Your task to perform on an android device: Open Chrome and go to the settings page Image 0: 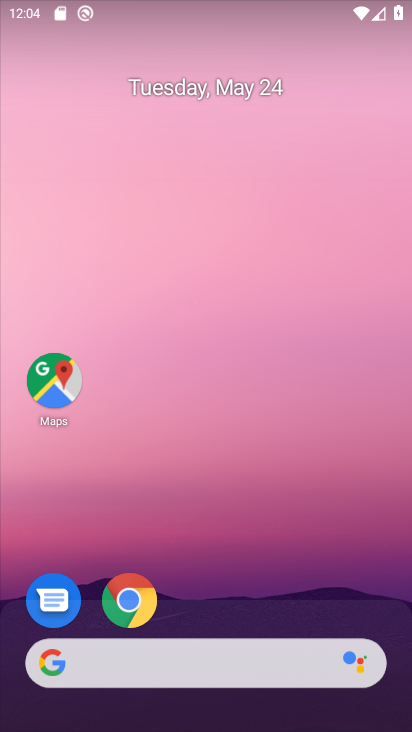
Step 0: click (134, 596)
Your task to perform on an android device: Open Chrome and go to the settings page Image 1: 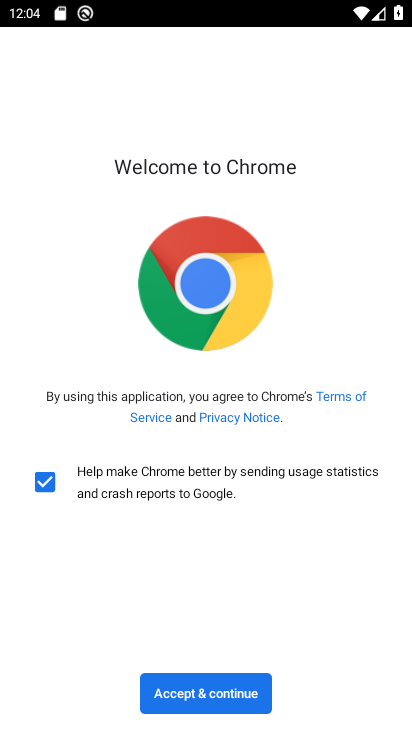
Step 1: click (248, 681)
Your task to perform on an android device: Open Chrome and go to the settings page Image 2: 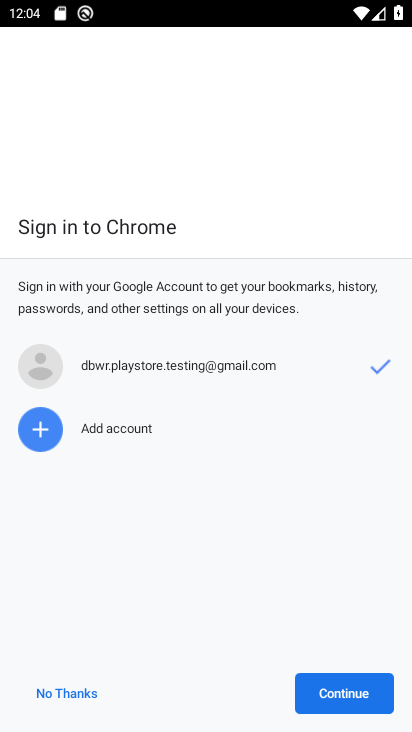
Step 2: click (361, 688)
Your task to perform on an android device: Open Chrome and go to the settings page Image 3: 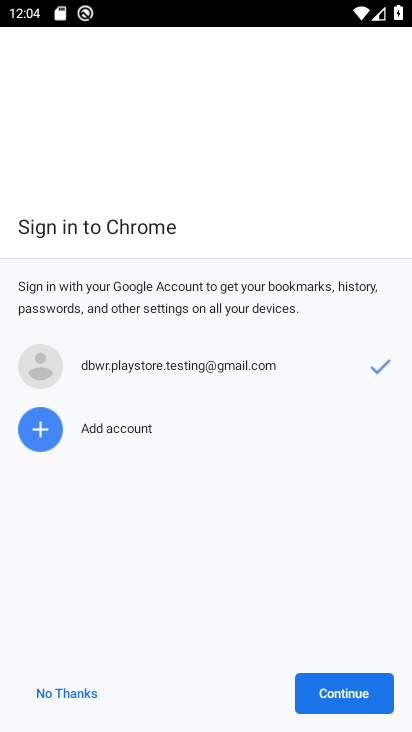
Step 3: click (361, 688)
Your task to perform on an android device: Open Chrome and go to the settings page Image 4: 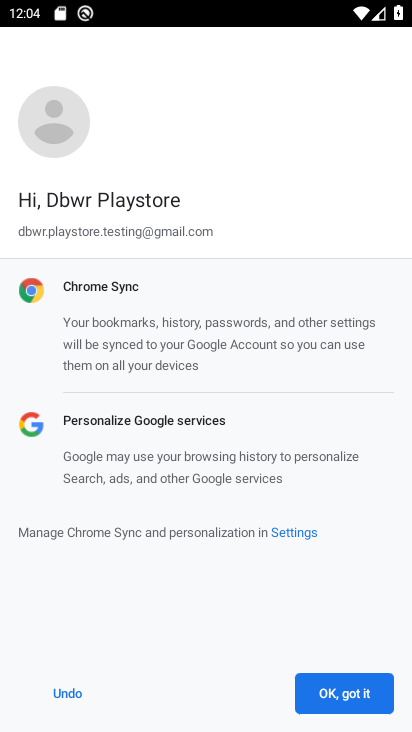
Step 4: click (361, 688)
Your task to perform on an android device: Open Chrome and go to the settings page Image 5: 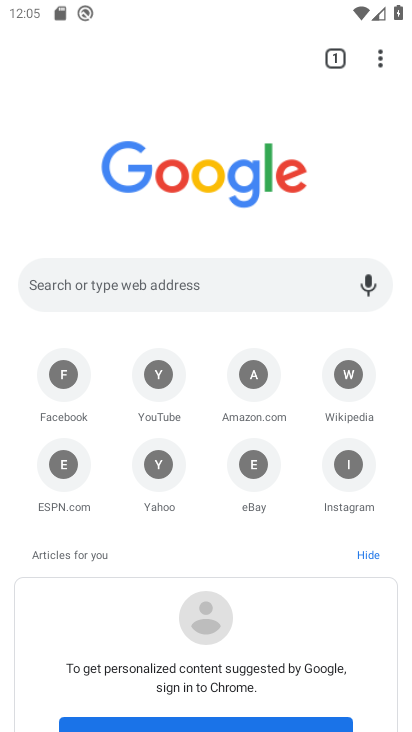
Step 5: click (379, 50)
Your task to perform on an android device: Open Chrome and go to the settings page Image 6: 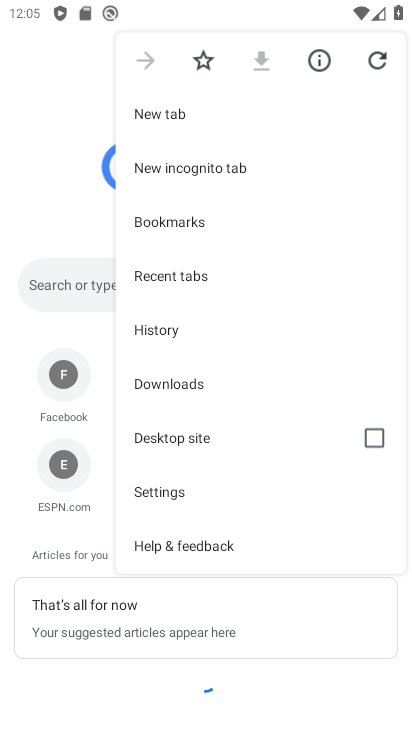
Step 6: click (254, 488)
Your task to perform on an android device: Open Chrome and go to the settings page Image 7: 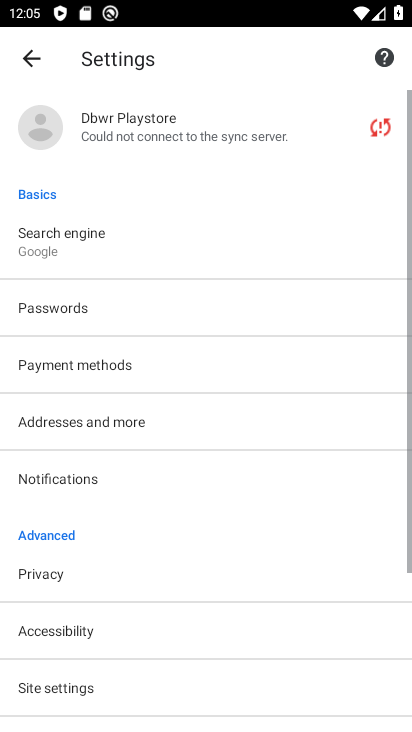
Step 7: task complete